Your task to perform on an android device: make emails show in primary in the gmail app Image 0: 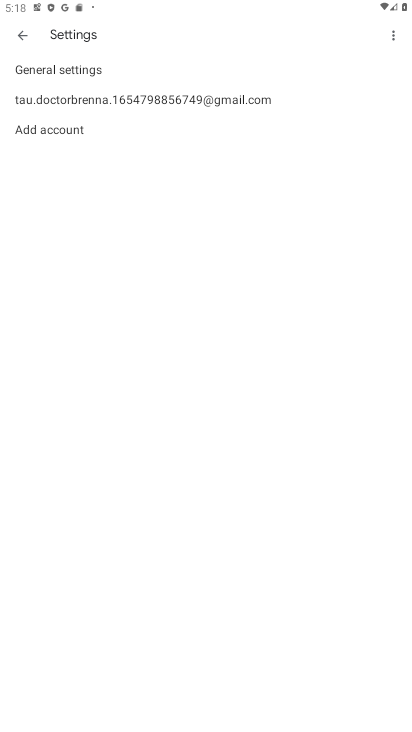
Step 0: click (23, 31)
Your task to perform on an android device: make emails show in primary in the gmail app Image 1: 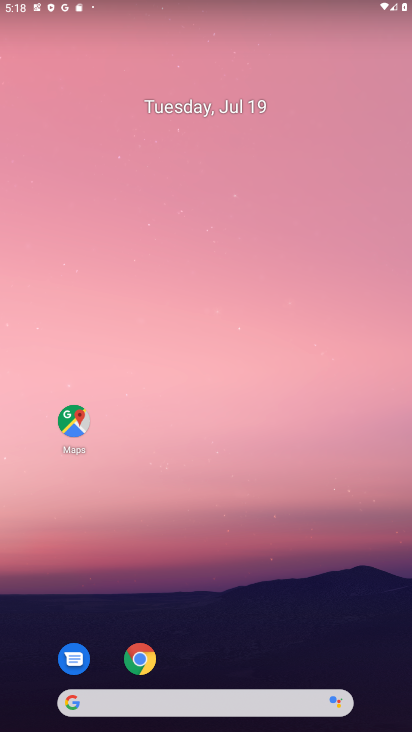
Step 1: drag from (206, 661) to (215, 210)
Your task to perform on an android device: make emails show in primary in the gmail app Image 2: 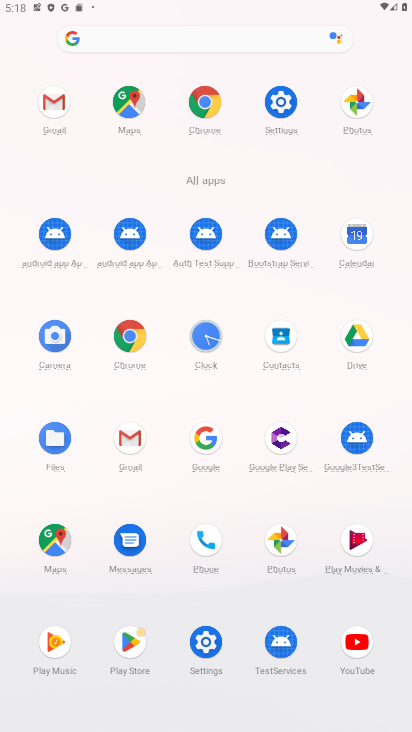
Step 2: click (119, 448)
Your task to perform on an android device: make emails show in primary in the gmail app Image 3: 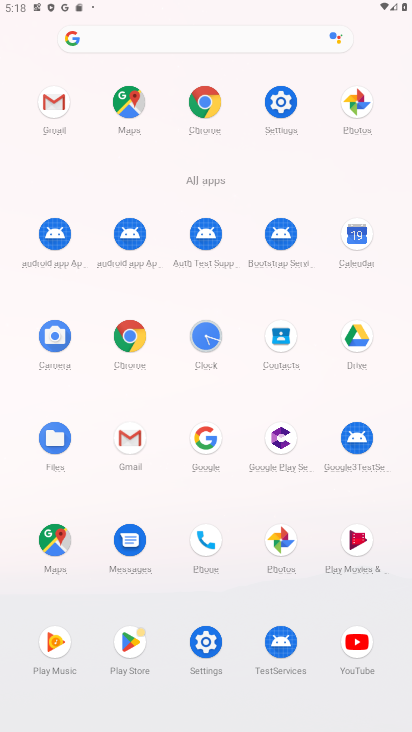
Step 3: click (124, 420)
Your task to perform on an android device: make emails show in primary in the gmail app Image 4: 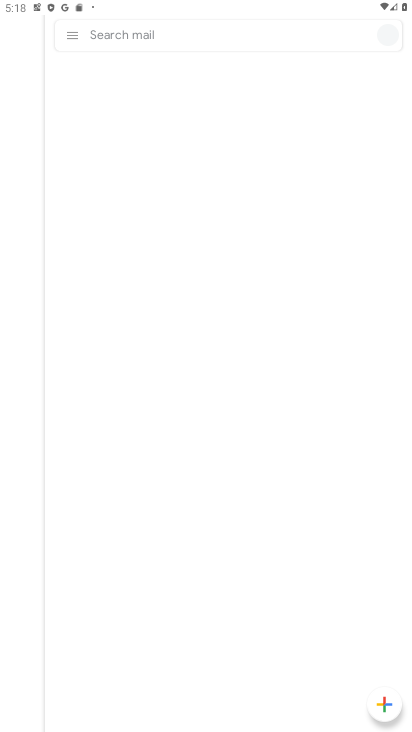
Step 4: click (123, 419)
Your task to perform on an android device: make emails show in primary in the gmail app Image 5: 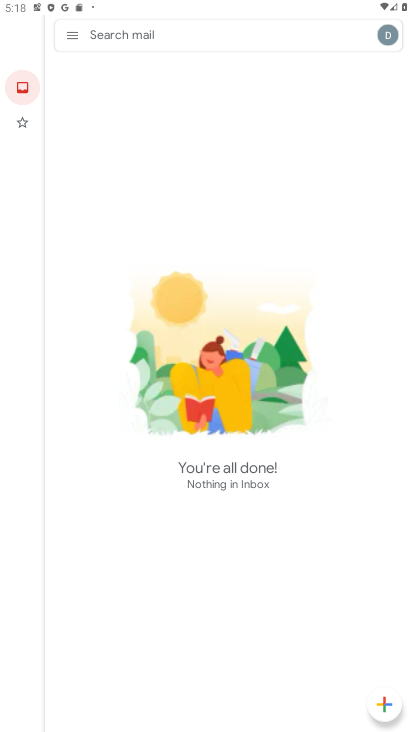
Step 5: click (65, 37)
Your task to perform on an android device: make emails show in primary in the gmail app Image 6: 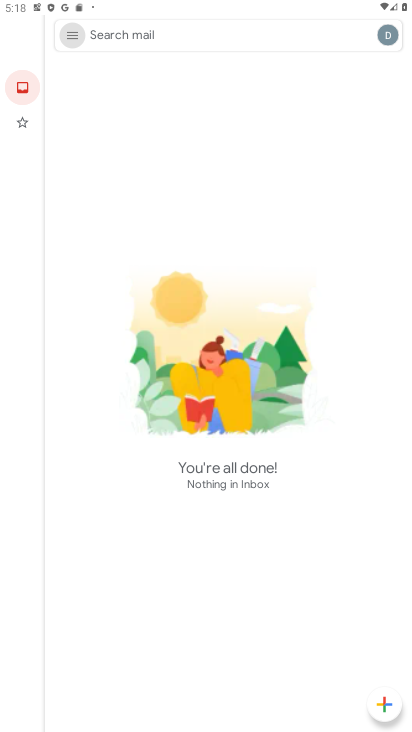
Step 6: click (69, 37)
Your task to perform on an android device: make emails show in primary in the gmail app Image 7: 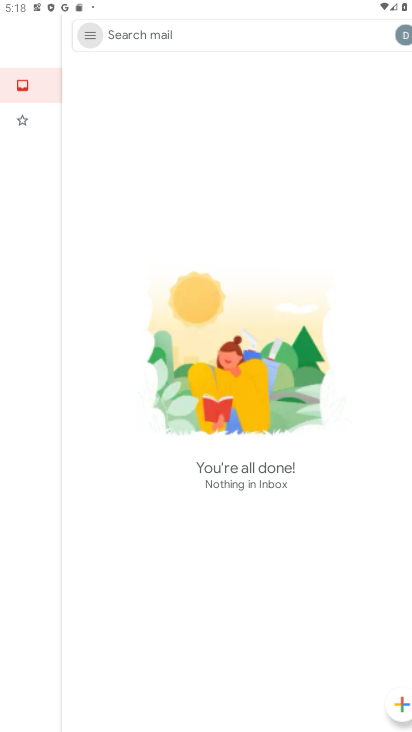
Step 7: click (70, 38)
Your task to perform on an android device: make emails show in primary in the gmail app Image 8: 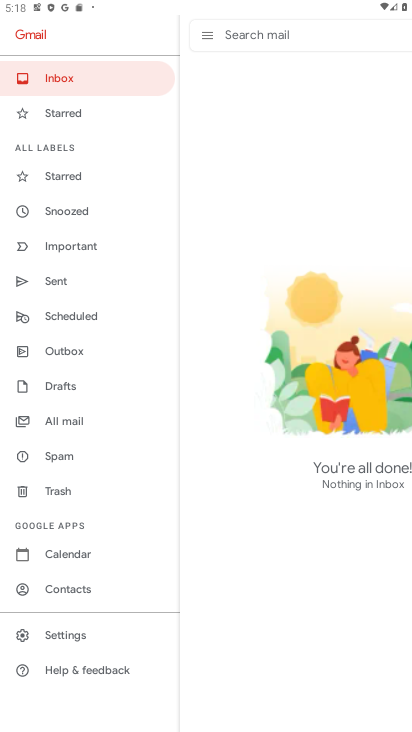
Step 8: click (57, 630)
Your task to perform on an android device: make emails show in primary in the gmail app Image 9: 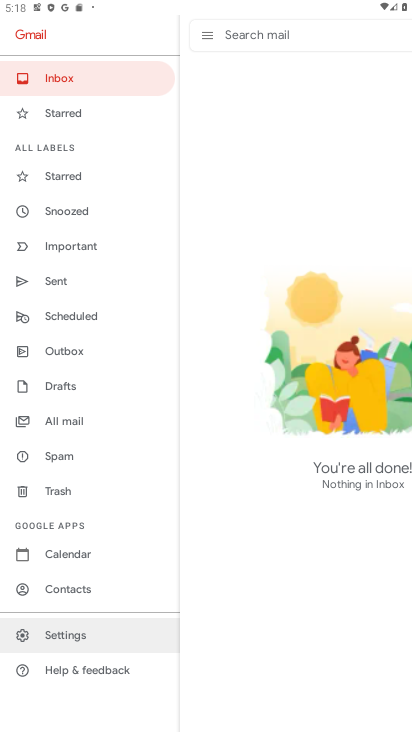
Step 9: click (64, 630)
Your task to perform on an android device: make emails show in primary in the gmail app Image 10: 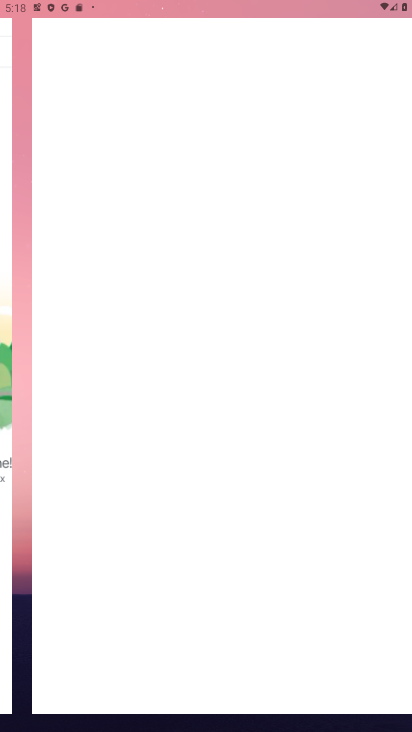
Step 10: click (80, 634)
Your task to perform on an android device: make emails show in primary in the gmail app Image 11: 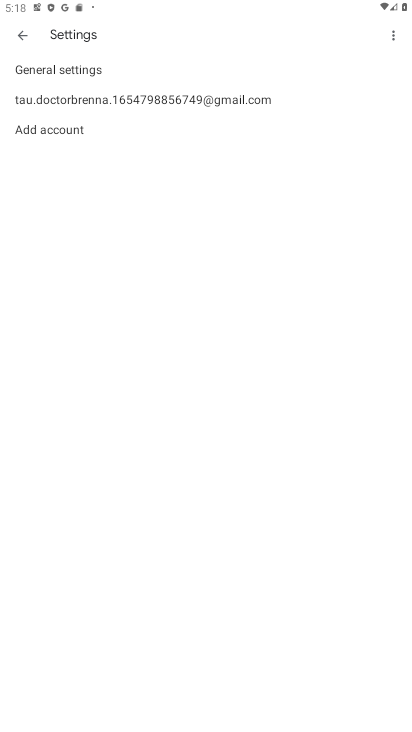
Step 11: click (79, 626)
Your task to perform on an android device: make emails show in primary in the gmail app Image 12: 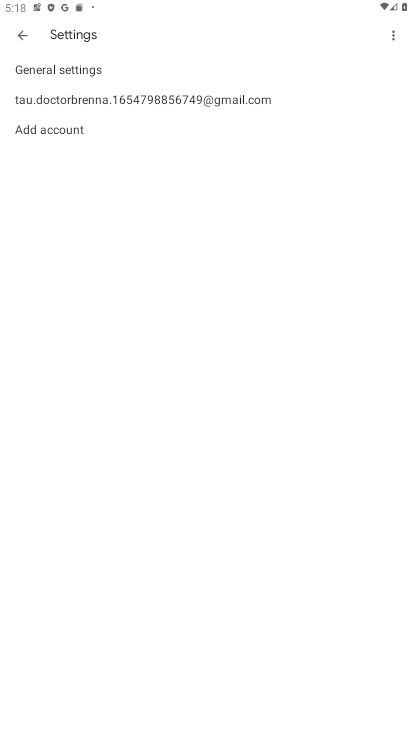
Step 12: click (79, 110)
Your task to perform on an android device: make emails show in primary in the gmail app Image 13: 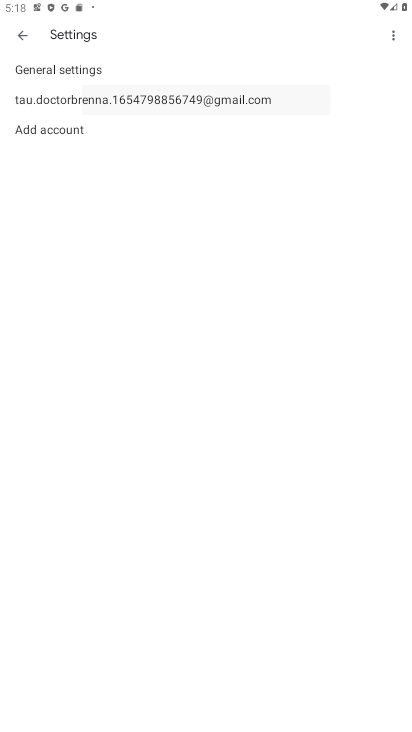
Step 13: click (79, 110)
Your task to perform on an android device: make emails show in primary in the gmail app Image 14: 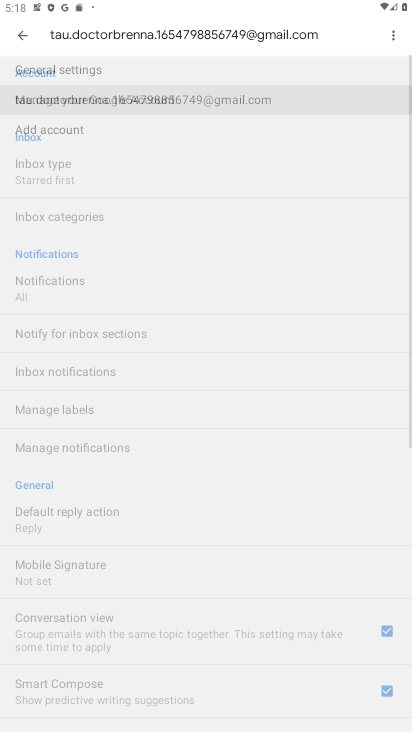
Step 14: click (78, 111)
Your task to perform on an android device: make emails show in primary in the gmail app Image 15: 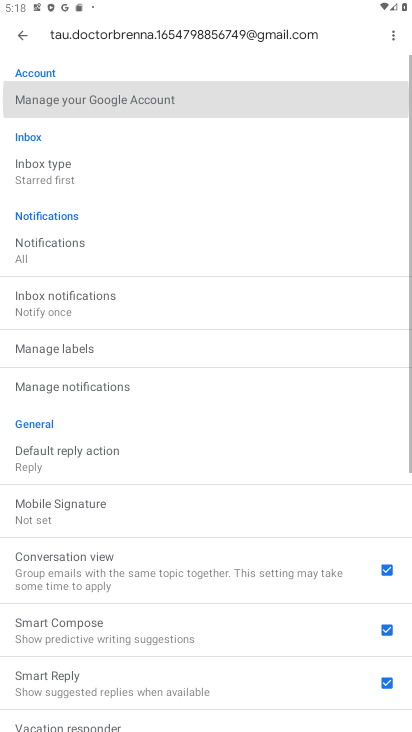
Step 15: click (78, 111)
Your task to perform on an android device: make emails show in primary in the gmail app Image 16: 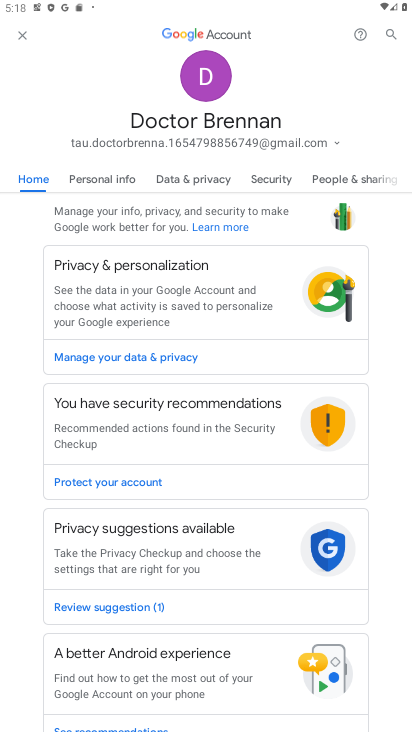
Step 16: click (13, 20)
Your task to perform on an android device: make emails show in primary in the gmail app Image 17: 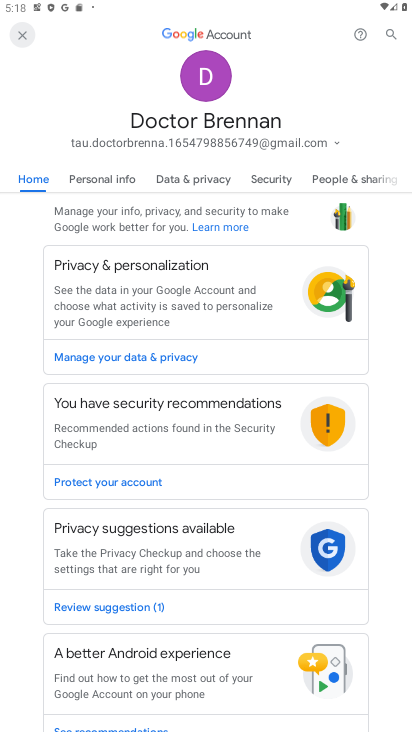
Step 17: click (22, 32)
Your task to perform on an android device: make emails show in primary in the gmail app Image 18: 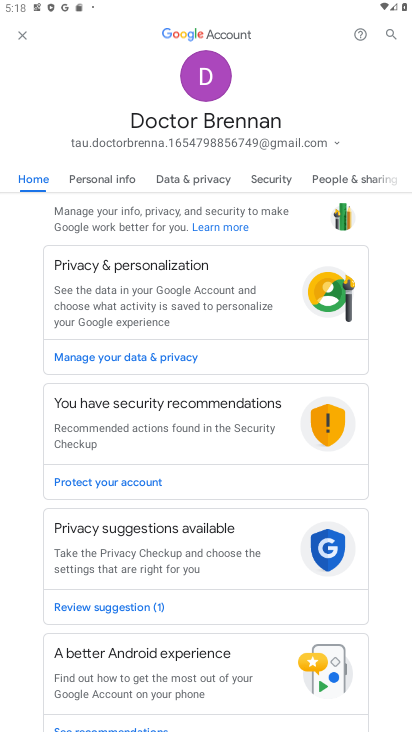
Step 18: click (25, 38)
Your task to perform on an android device: make emails show in primary in the gmail app Image 19: 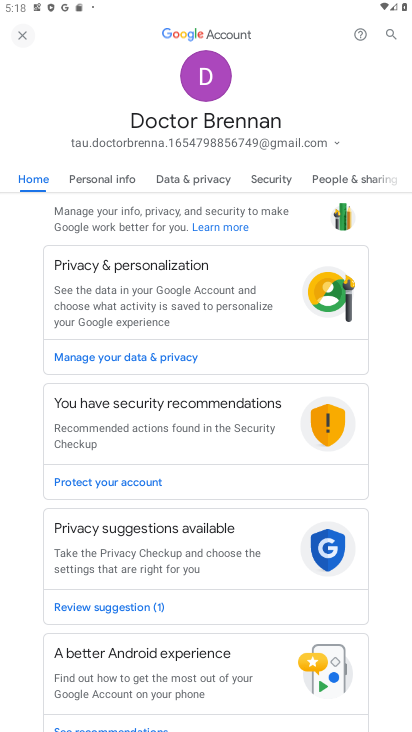
Step 19: click (23, 39)
Your task to perform on an android device: make emails show in primary in the gmail app Image 20: 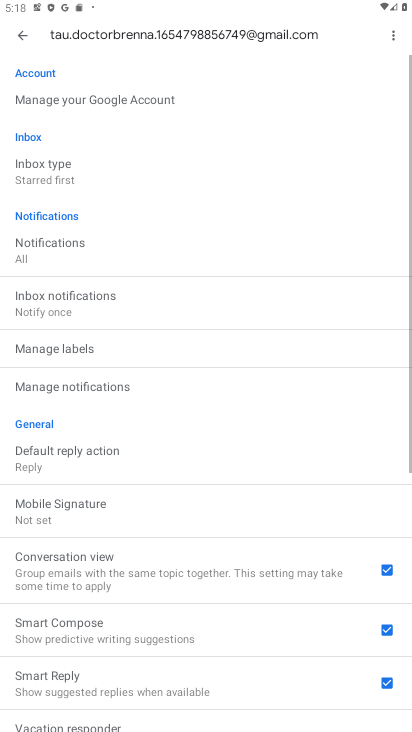
Step 20: click (23, 39)
Your task to perform on an android device: make emails show in primary in the gmail app Image 21: 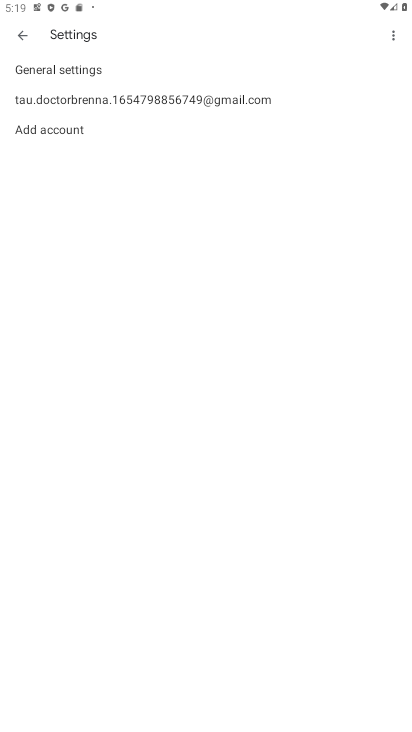
Step 21: task complete